Your task to perform on an android device: turn on improve location accuracy Image 0: 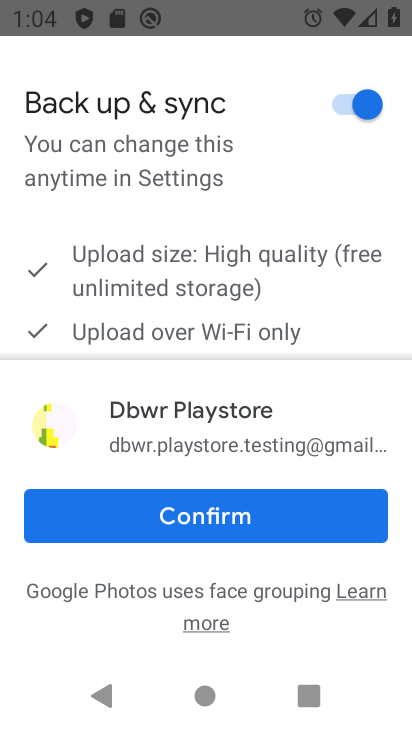
Step 0: click (289, 519)
Your task to perform on an android device: turn on improve location accuracy Image 1: 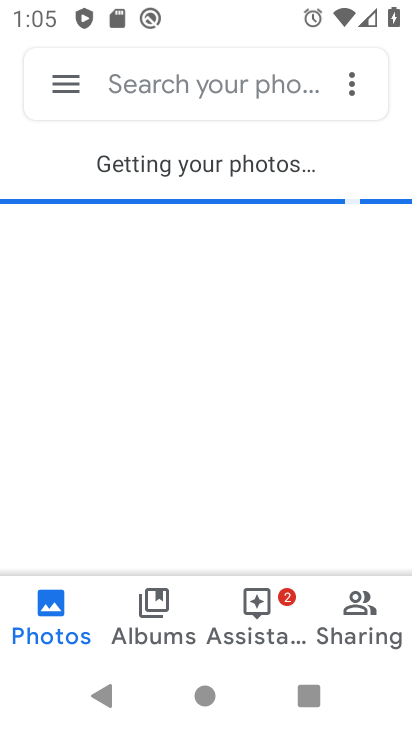
Step 1: press home button
Your task to perform on an android device: turn on improve location accuracy Image 2: 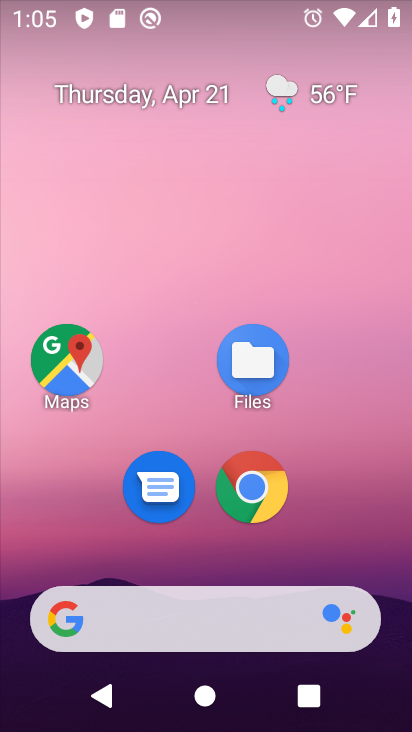
Step 2: drag from (327, 484) to (306, 201)
Your task to perform on an android device: turn on improve location accuracy Image 3: 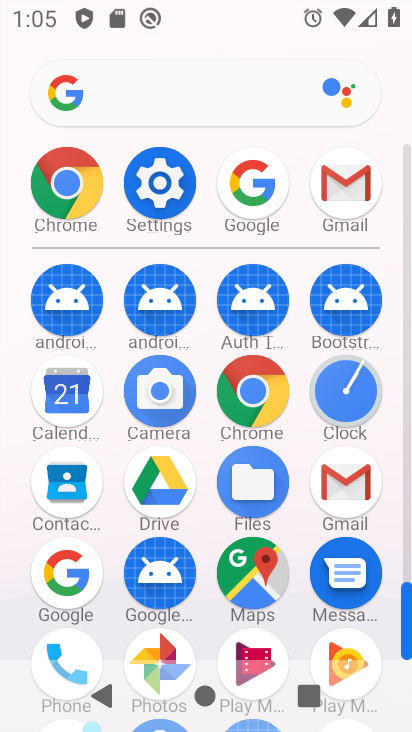
Step 3: click (179, 187)
Your task to perform on an android device: turn on improve location accuracy Image 4: 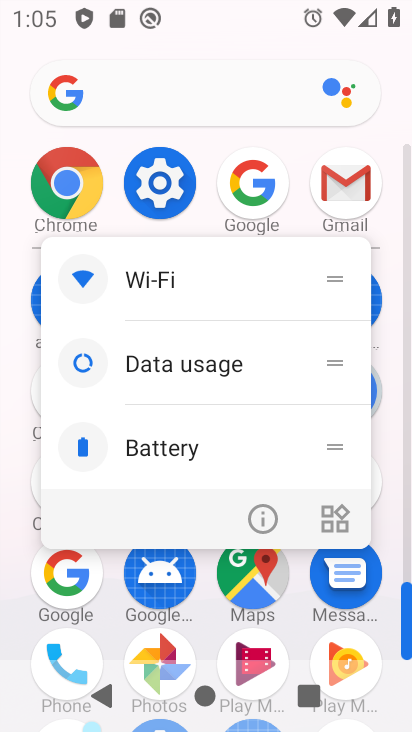
Step 4: click (174, 187)
Your task to perform on an android device: turn on improve location accuracy Image 5: 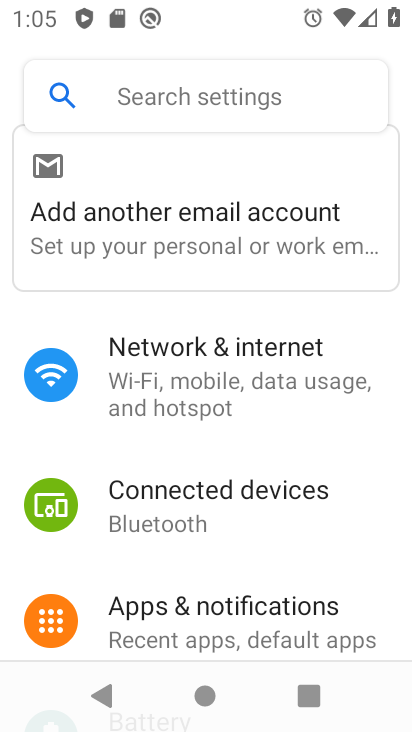
Step 5: drag from (307, 541) to (246, 129)
Your task to perform on an android device: turn on improve location accuracy Image 6: 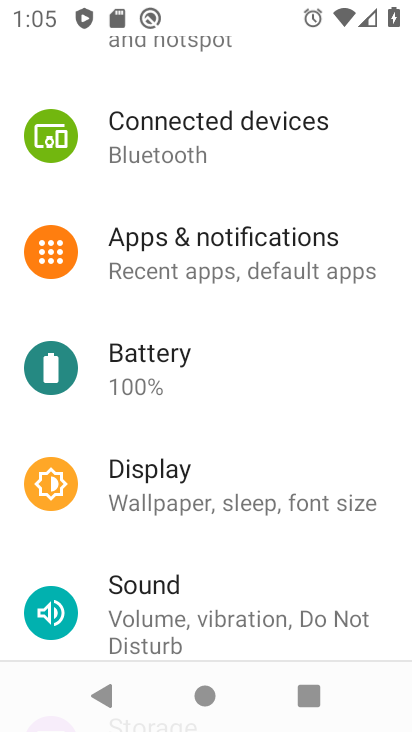
Step 6: drag from (296, 518) to (281, 217)
Your task to perform on an android device: turn on improve location accuracy Image 7: 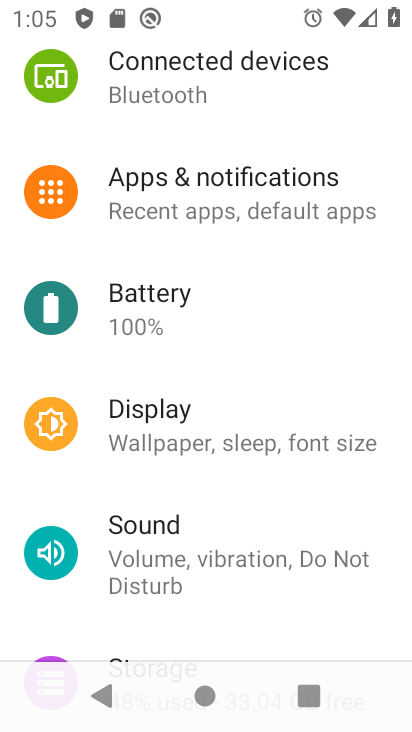
Step 7: drag from (315, 590) to (320, 255)
Your task to perform on an android device: turn on improve location accuracy Image 8: 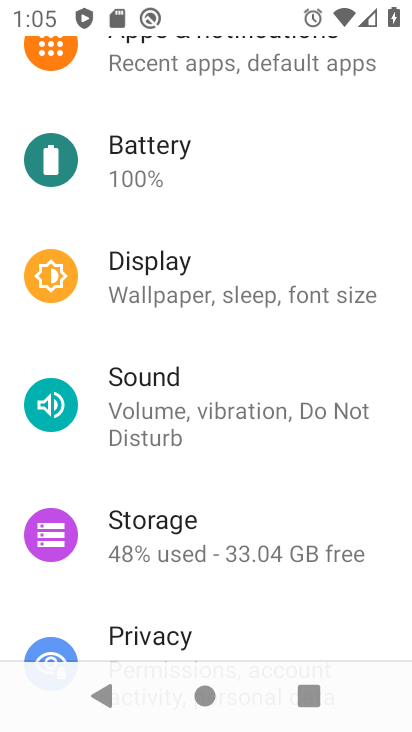
Step 8: drag from (306, 562) to (285, 197)
Your task to perform on an android device: turn on improve location accuracy Image 9: 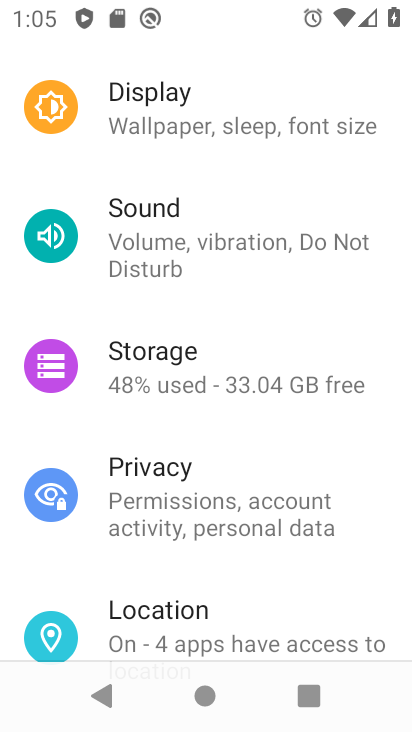
Step 9: click (277, 623)
Your task to perform on an android device: turn on improve location accuracy Image 10: 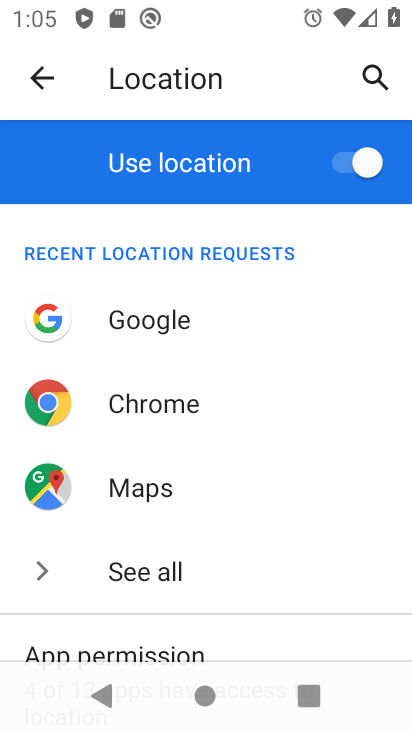
Step 10: drag from (275, 632) to (255, 287)
Your task to perform on an android device: turn on improve location accuracy Image 11: 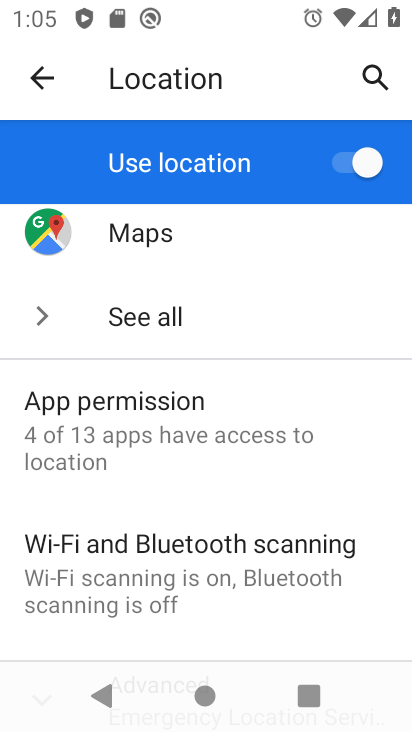
Step 11: drag from (298, 557) to (285, 321)
Your task to perform on an android device: turn on improve location accuracy Image 12: 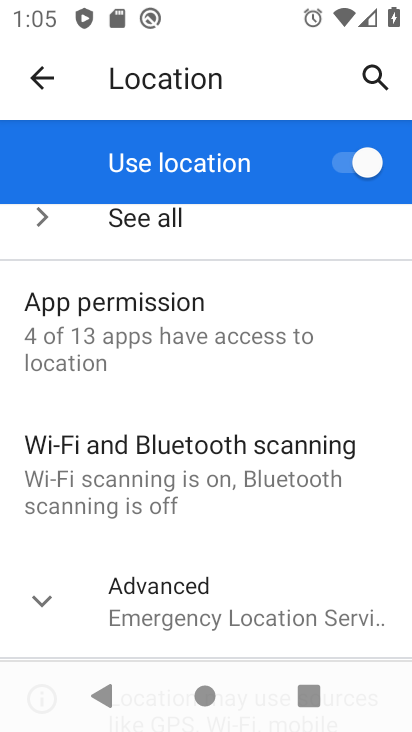
Step 12: click (242, 604)
Your task to perform on an android device: turn on improve location accuracy Image 13: 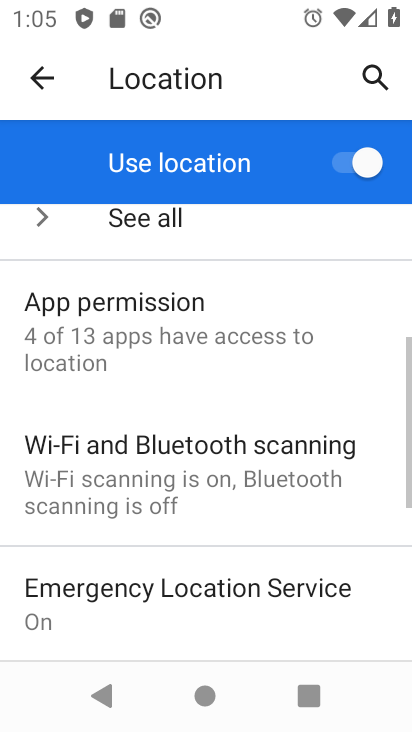
Step 13: task complete